Your task to perform on an android device: Go to Amazon Image 0: 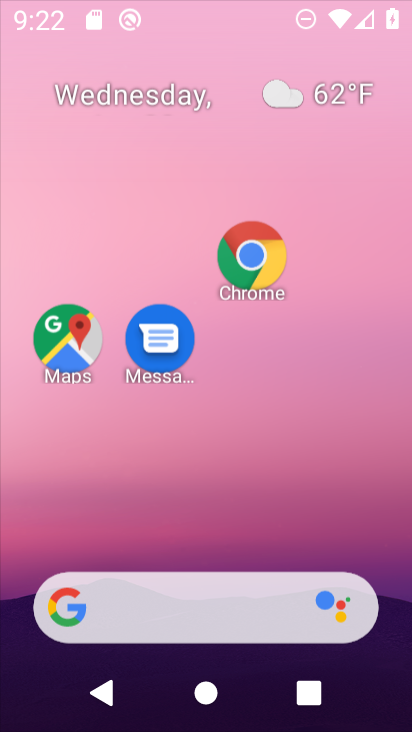
Step 0: drag from (155, 27) to (402, 137)
Your task to perform on an android device: Go to Amazon Image 1: 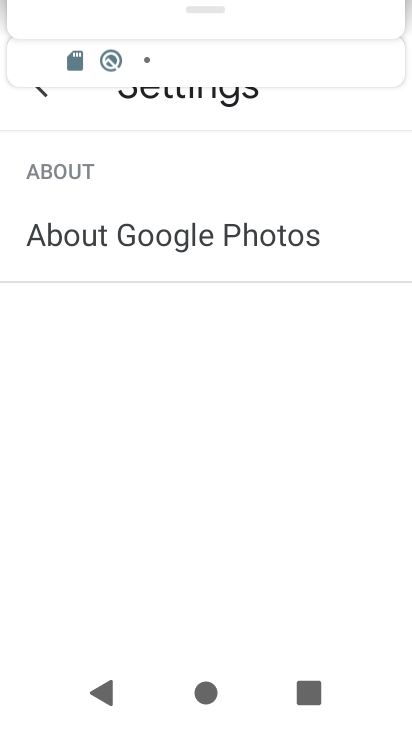
Step 1: press home button
Your task to perform on an android device: Go to Amazon Image 2: 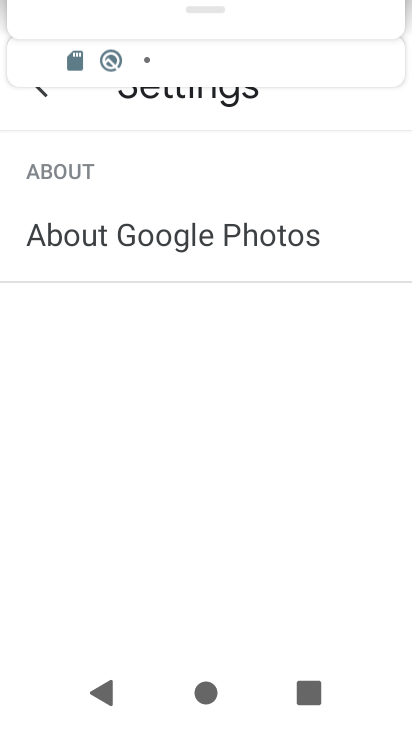
Step 2: click (411, 429)
Your task to perform on an android device: Go to Amazon Image 3: 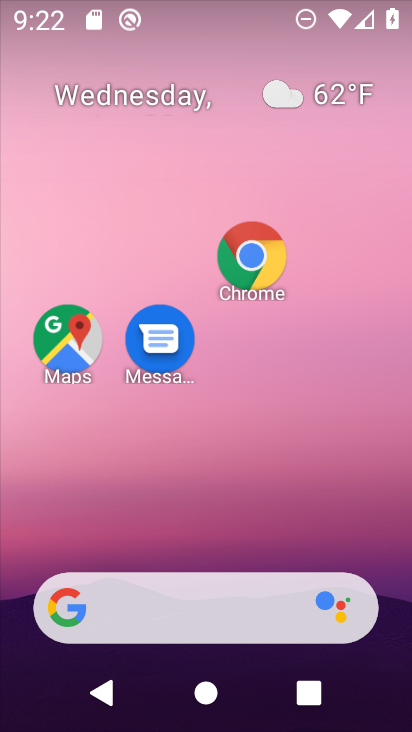
Step 3: click (251, 252)
Your task to perform on an android device: Go to Amazon Image 4: 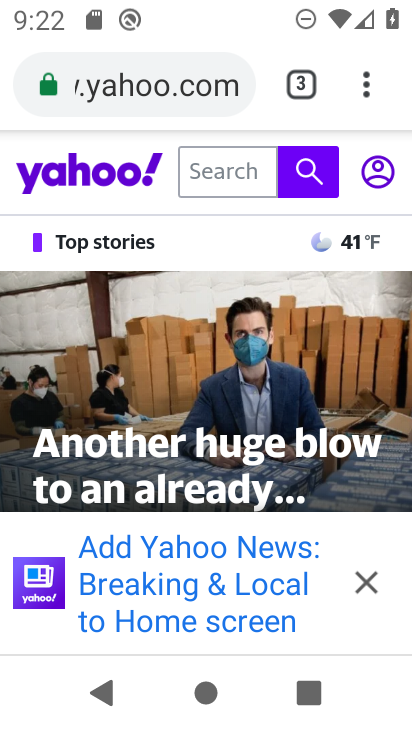
Step 4: click (212, 83)
Your task to perform on an android device: Go to Amazon Image 5: 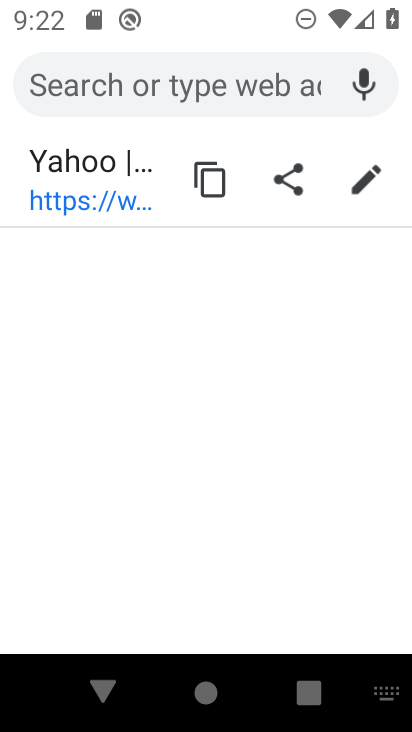
Step 5: type "amazon"
Your task to perform on an android device: Go to Amazon Image 6: 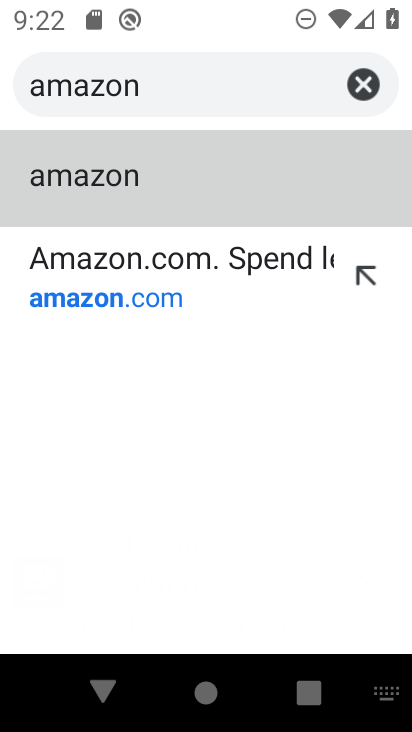
Step 6: click (139, 291)
Your task to perform on an android device: Go to Amazon Image 7: 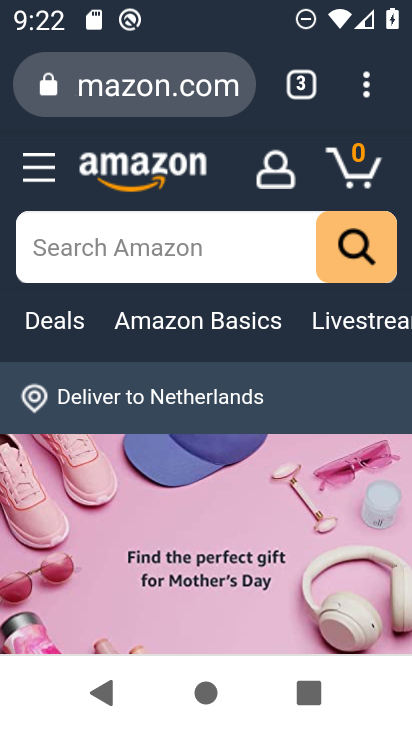
Step 7: task complete